Your task to perform on an android device: turn off airplane mode Image 0: 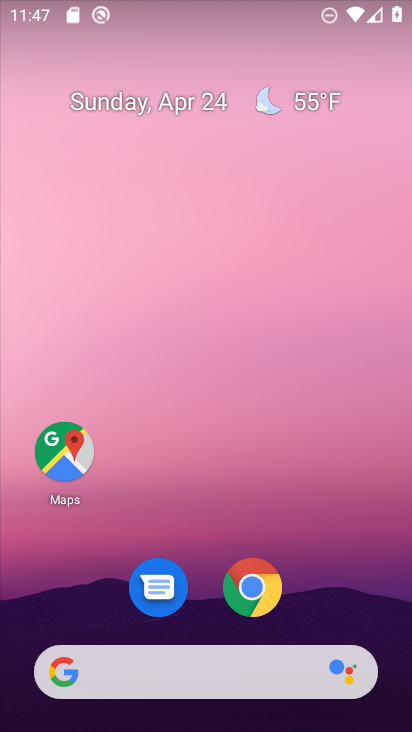
Step 0: drag from (167, 3) to (269, 472)
Your task to perform on an android device: turn off airplane mode Image 1: 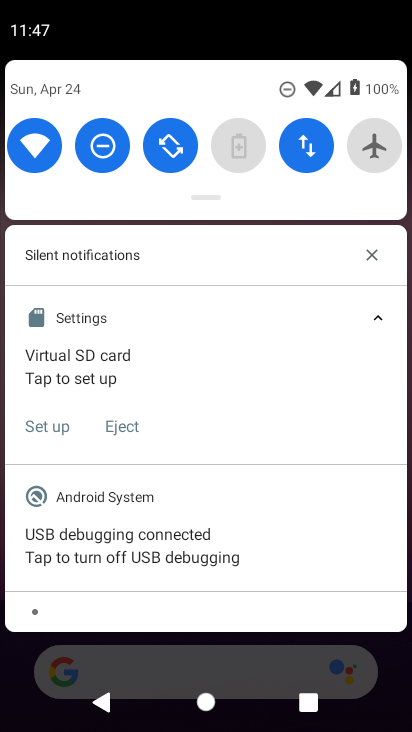
Step 1: task complete